Your task to perform on an android device: Open calendar and show me the second week of next month Image 0: 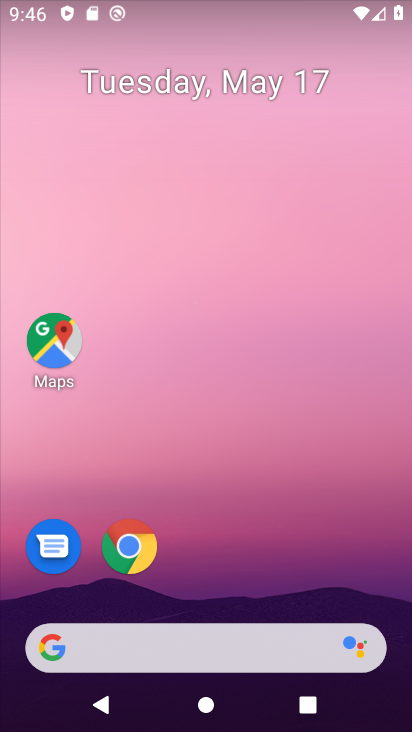
Step 0: drag from (226, 580) to (234, 188)
Your task to perform on an android device: Open calendar and show me the second week of next month Image 1: 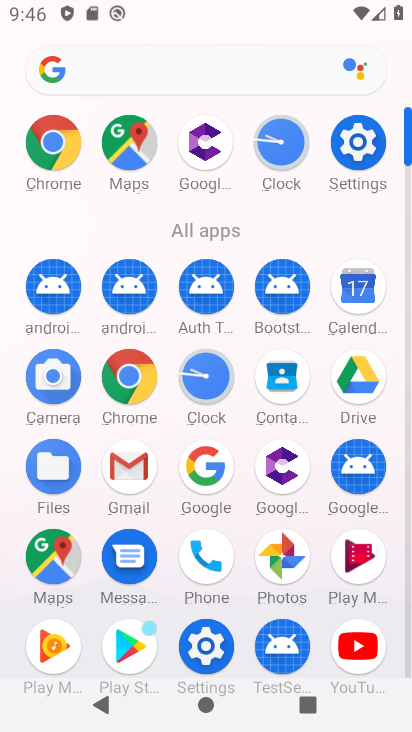
Step 1: click (360, 280)
Your task to perform on an android device: Open calendar and show me the second week of next month Image 2: 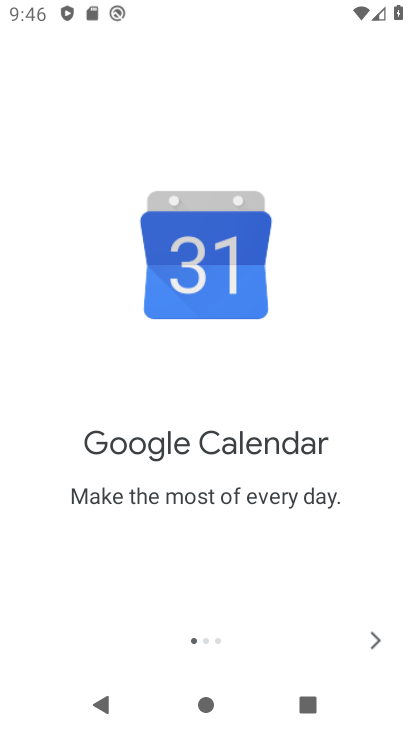
Step 2: click (379, 633)
Your task to perform on an android device: Open calendar and show me the second week of next month Image 3: 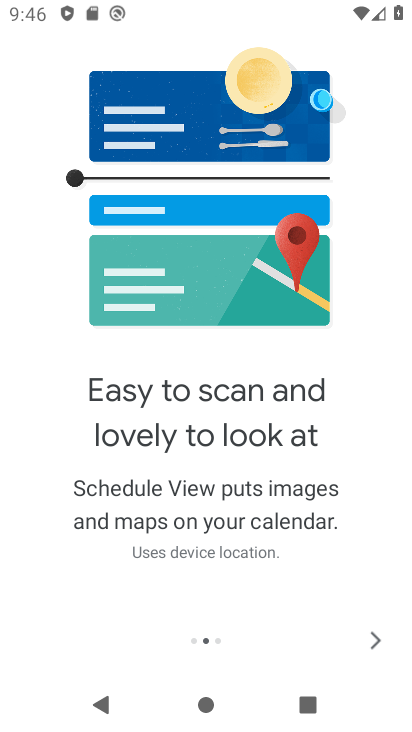
Step 3: click (377, 634)
Your task to perform on an android device: Open calendar and show me the second week of next month Image 4: 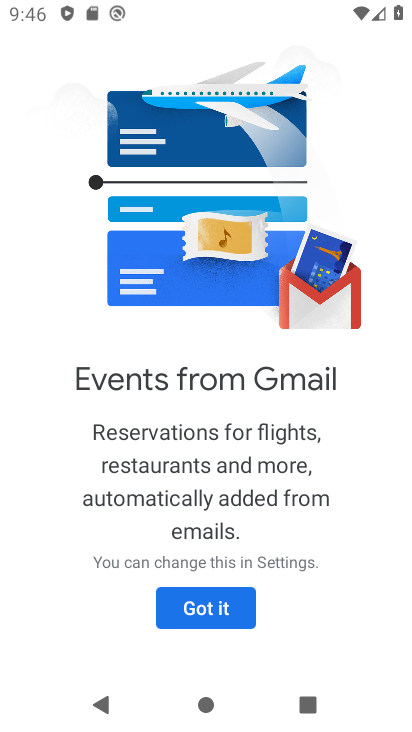
Step 4: click (207, 591)
Your task to perform on an android device: Open calendar and show me the second week of next month Image 5: 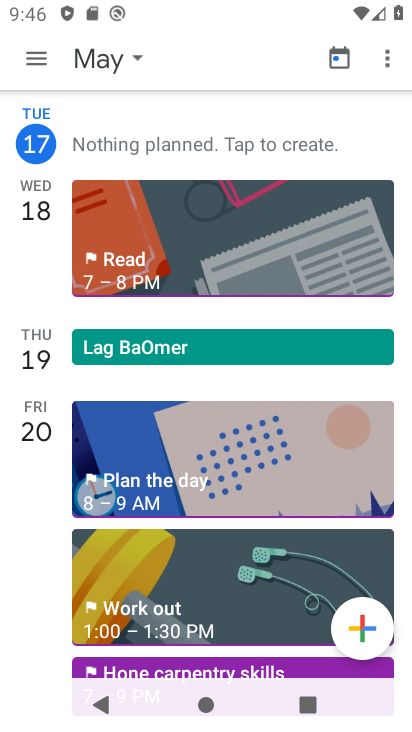
Step 5: click (31, 58)
Your task to perform on an android device: Open calendar and show me the second week of next month Image 6: 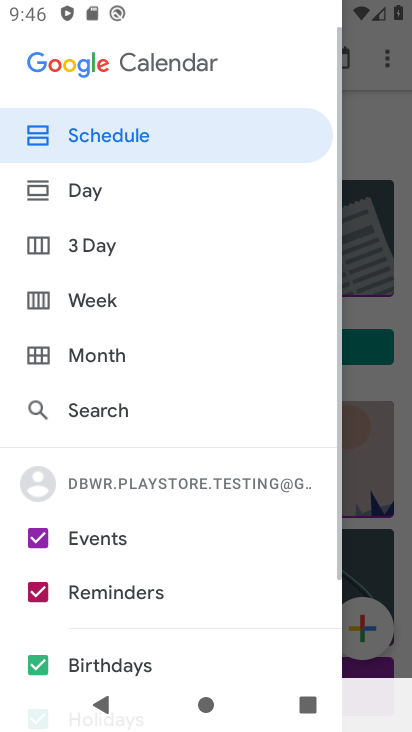
Step 6: click (92, 346)
Your task to perform on an android device: Open calendar and show me the second week of next month Image 7: 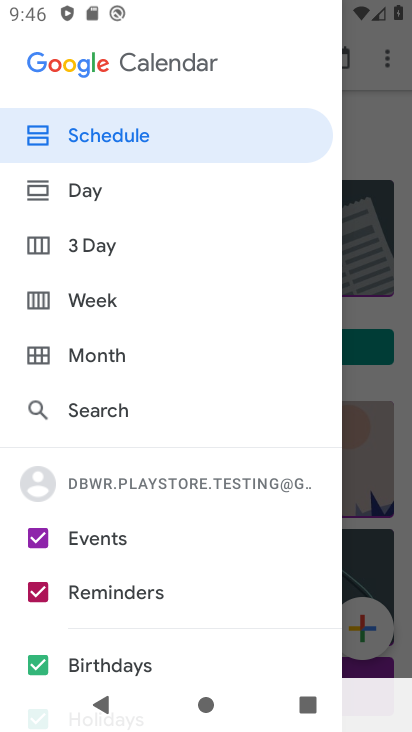
Step 7: click (102, 355)
Your task to perform on an android device: Open calendar and show me the second week of next month Image 8: 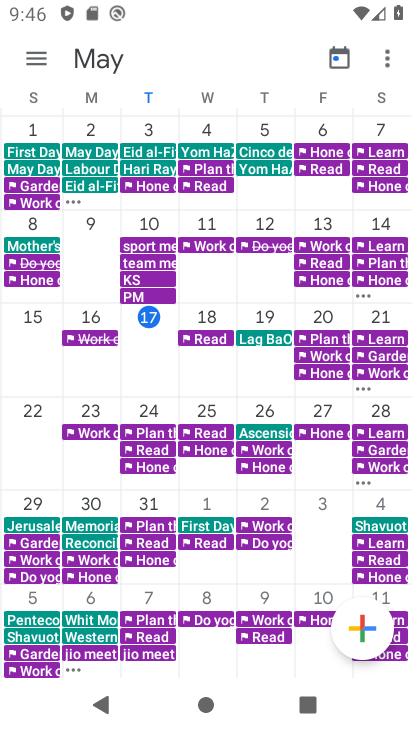
Step 8: task complete